Your task to perform on an android device: Open the stopwatch Image 0: 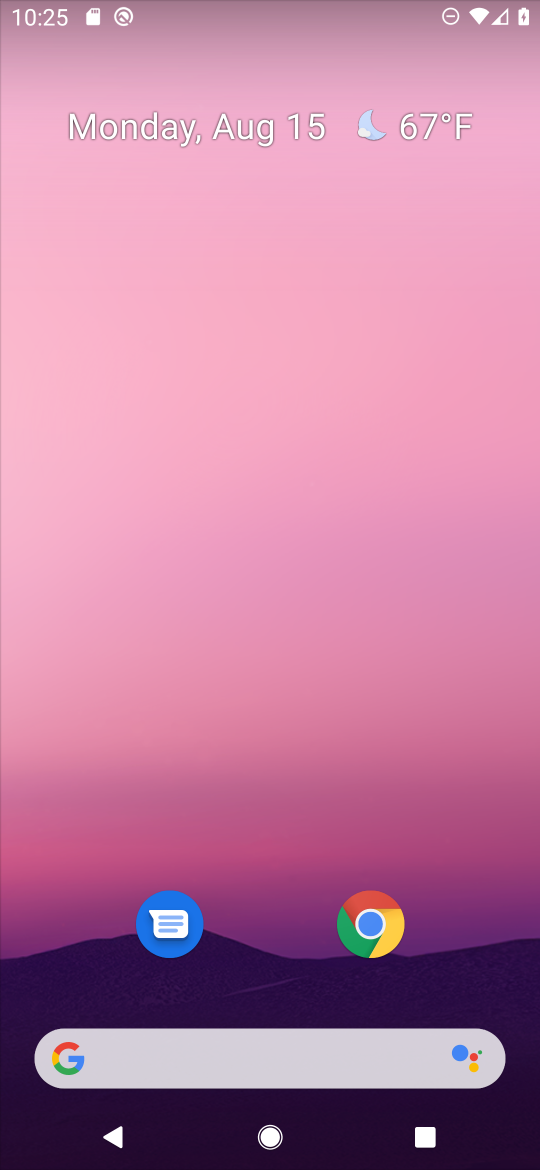
Step 0: drag from (503, 986) to (471, 256)
Your task to perform on an android device: Open the stopwatch Image 1: 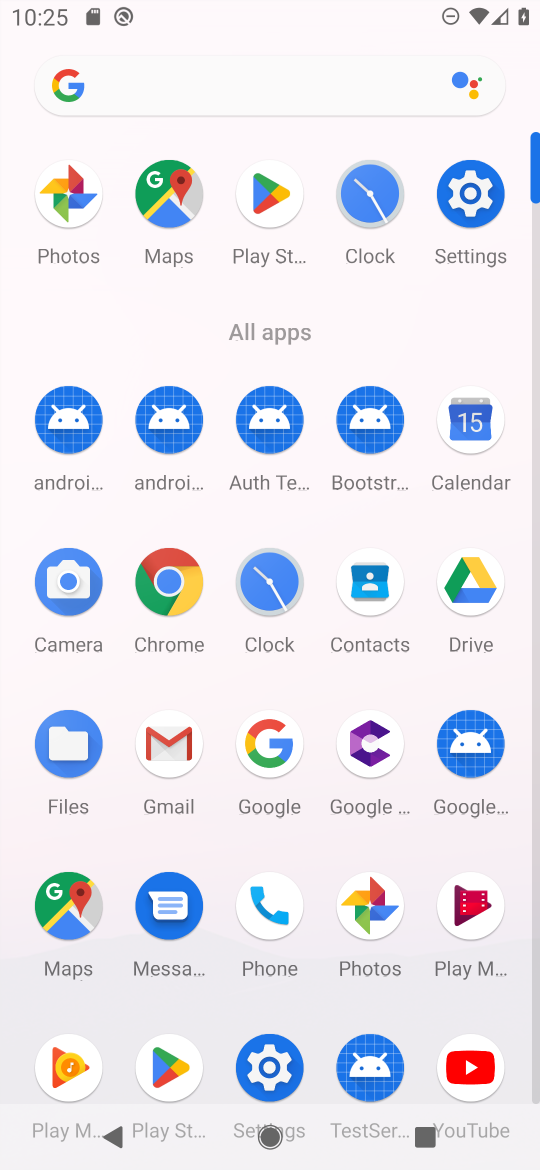
Step 1: click (272, 586)
Your task to perform on an android device: Open the stopwatch Image 2: 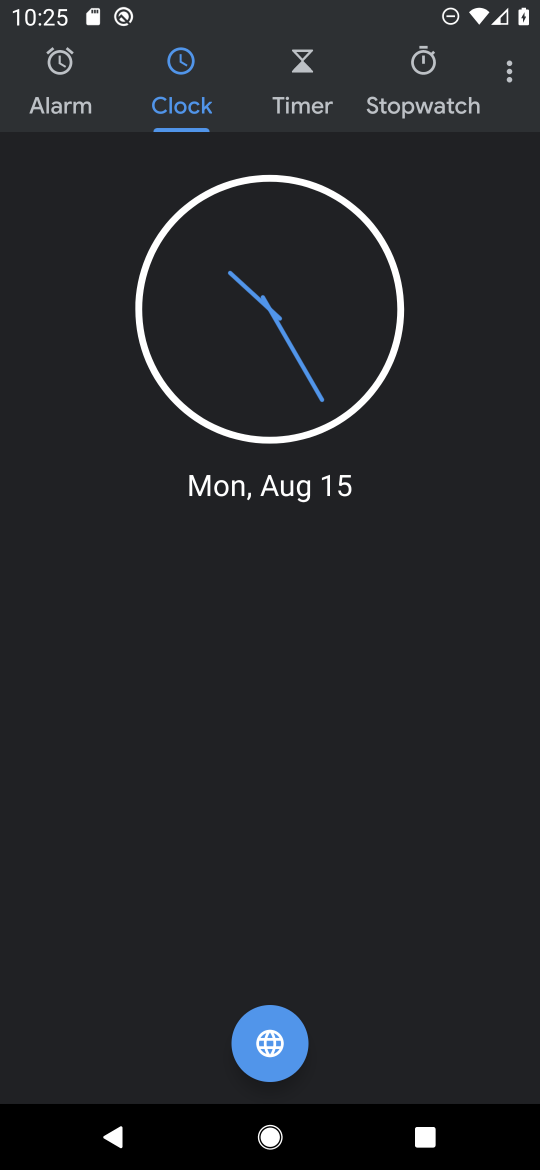
Step 2: click (432, 66)
Your task to perform on an android device: Open the stopwatch Image 3: 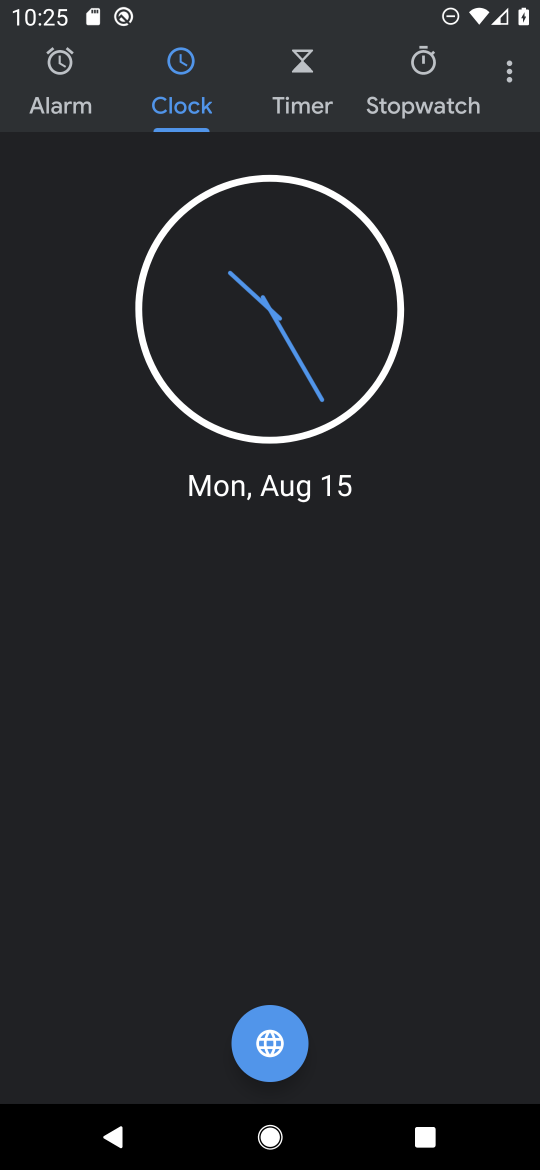
Step 3: click (425, 66)
Your task to perform on an android device: Open the stopwatch Image 4: 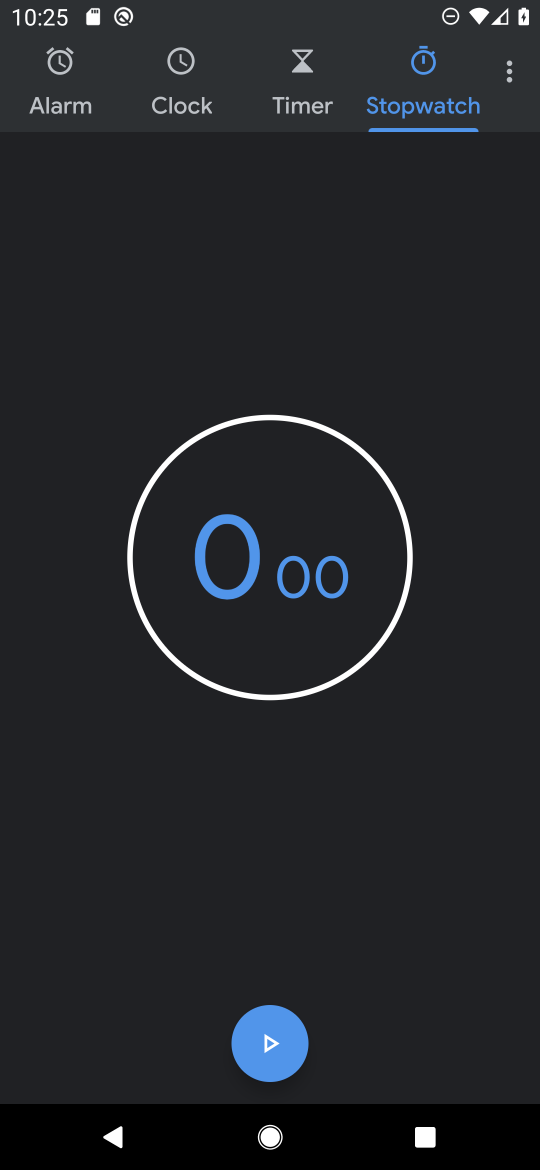
Step 4: task complete